Your task to perform on an android device: Open Google Chrome and click the shortcut for Amazon.com Image 0: 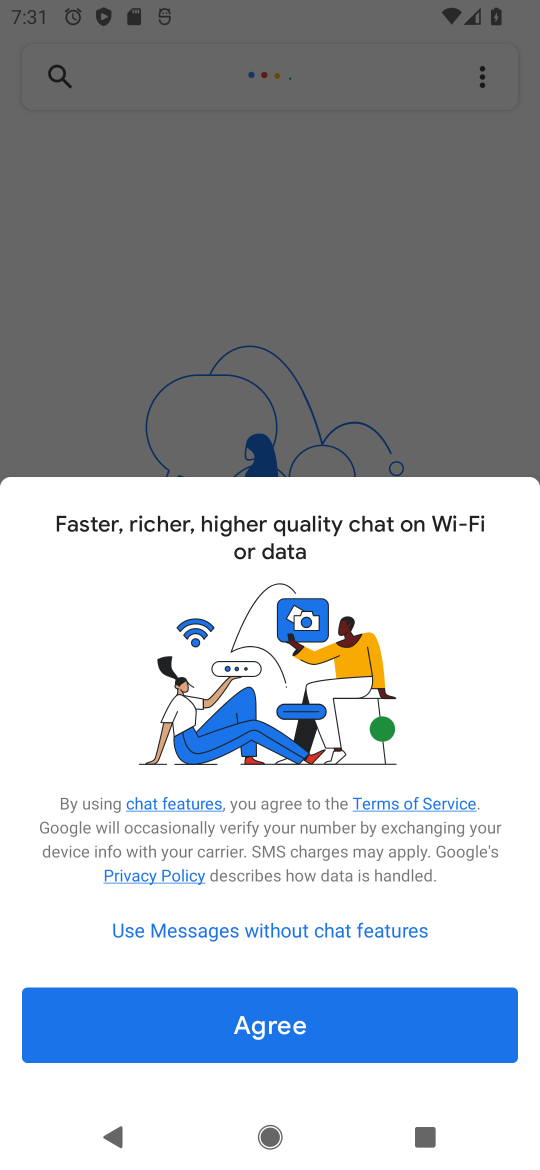
Step 0: press home button
Your task to perform on an android device: Open Google Chrome and click the shortcut for Amazon.com Image 1: 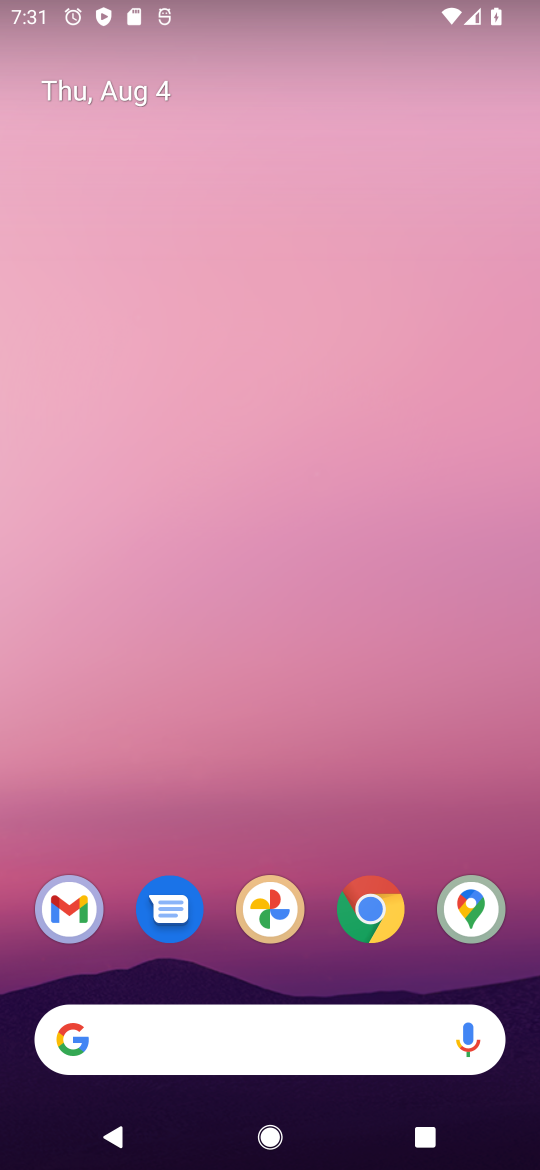
Step 1: drag from (231, 952) to (357, 10)
Your task to perform on an android device: Open Google Chrome and click the shortcut for Amazon.com Image 2: 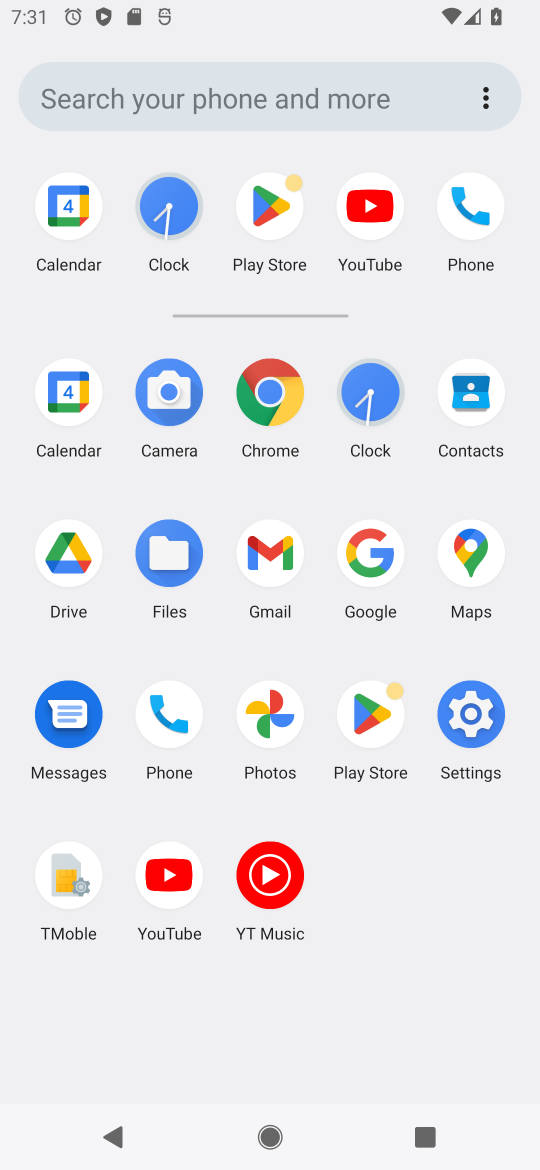
Step 2: click (263, 412)
Your task to perform on an android device: Open Google Chrome and click the shortcut for Amazon.com Image 3: 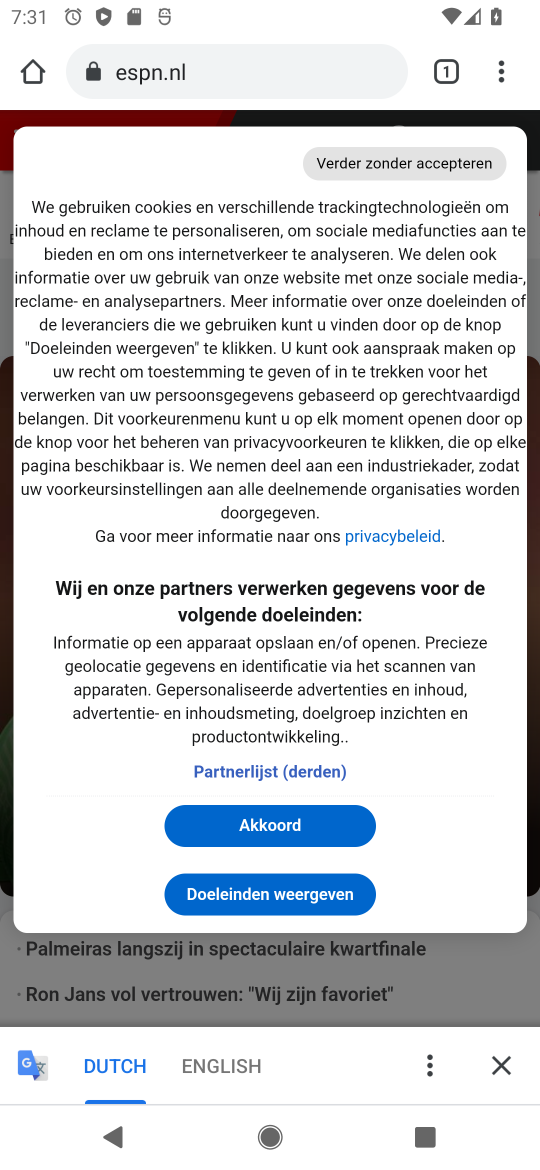
Step 3: click (237, 70)
Your task to perform on an android device: Open Google Chrome and click the shortcut for Amazon.com Image 4: 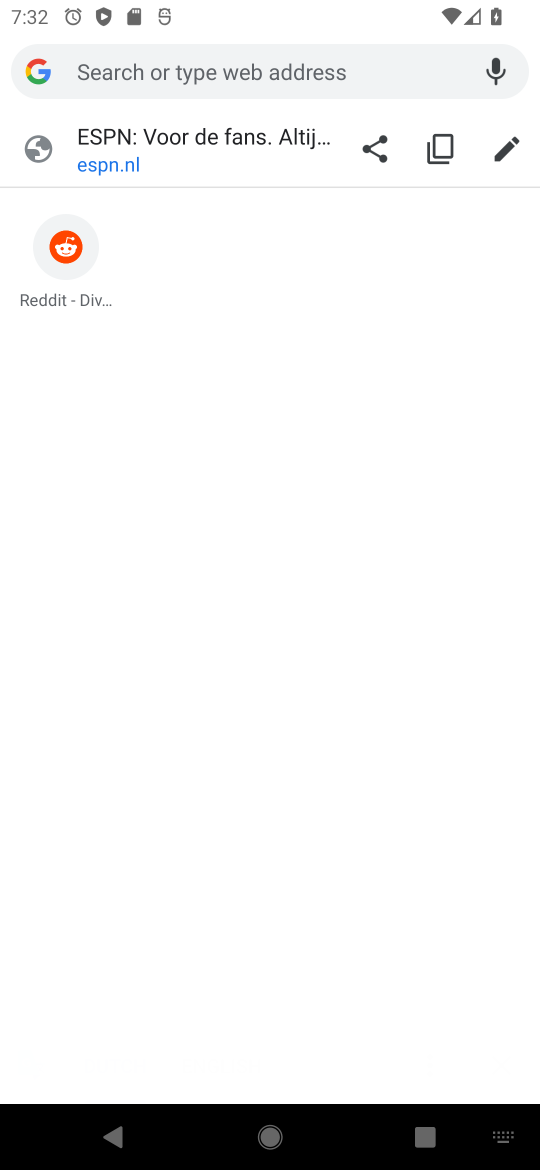
Step 4: type "Amazon.com"
Your task to perform on an android device: Open Google Chrome and click the shortcut for Amazon.com Image 5: 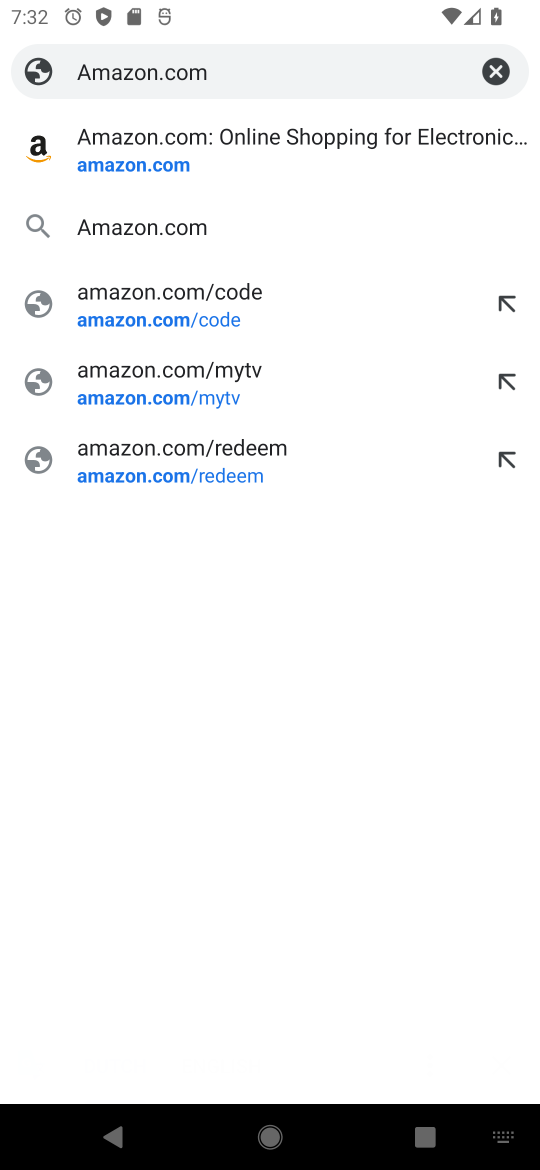
Step 5: click (151, 157)
Your task to perform on an android device: Open Google Chrome and click the shortcut for Amazon.com Image 6: 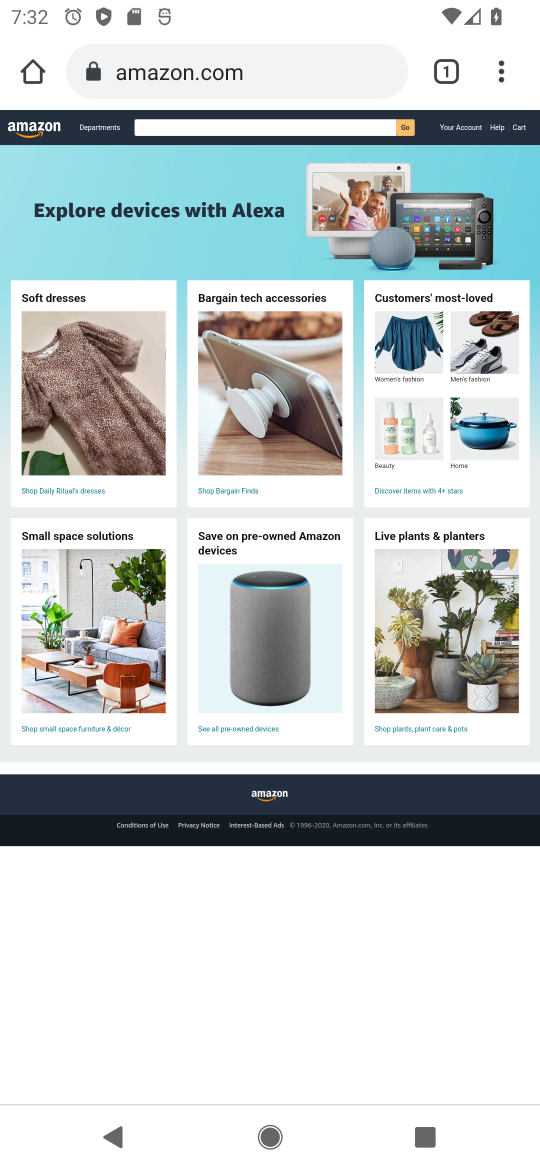
Step 6: task complete